Your task to perform on an android device: Add logitech g pro to the cart on costco, then select checkout. Image 0: 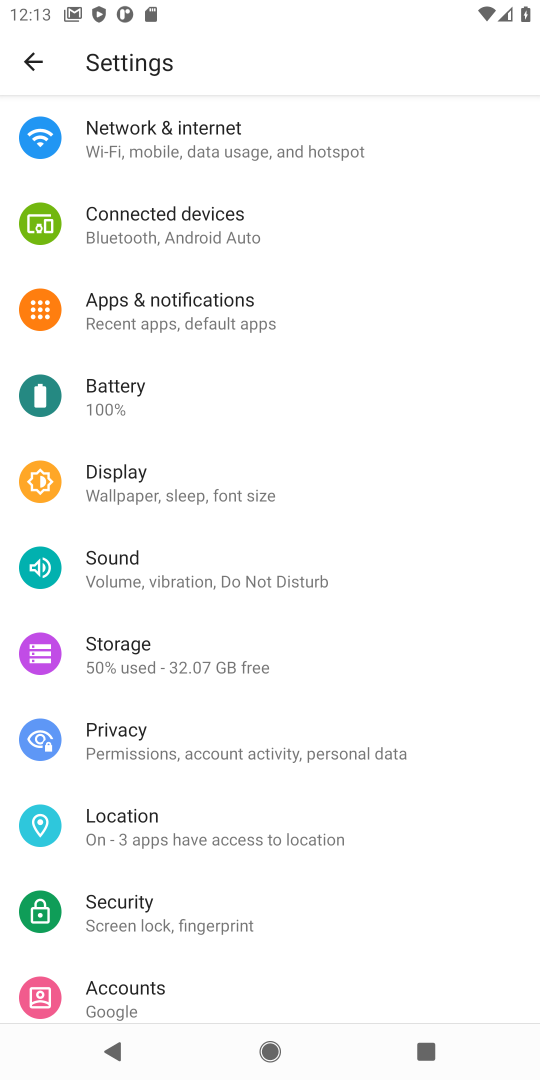
Step 0: press home button
Your task to perform on an android device: Add logitech g pro to the cart on costco, then select checkout. Image 1: 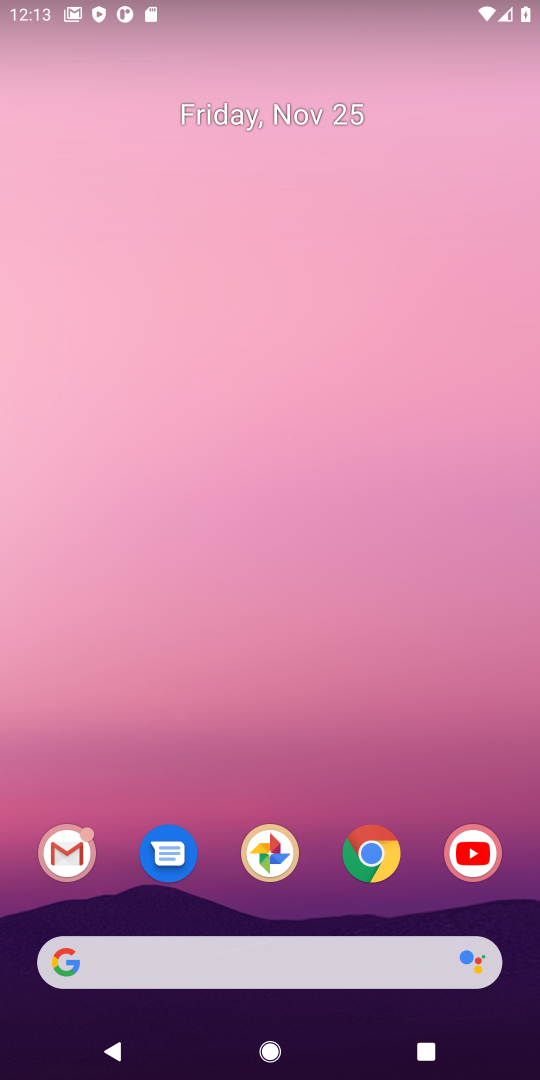
Step 1: click (186, 957)
Your task to perform on an android device: Add logitech g pro to the cart on costco, then select checkout. Image 2: 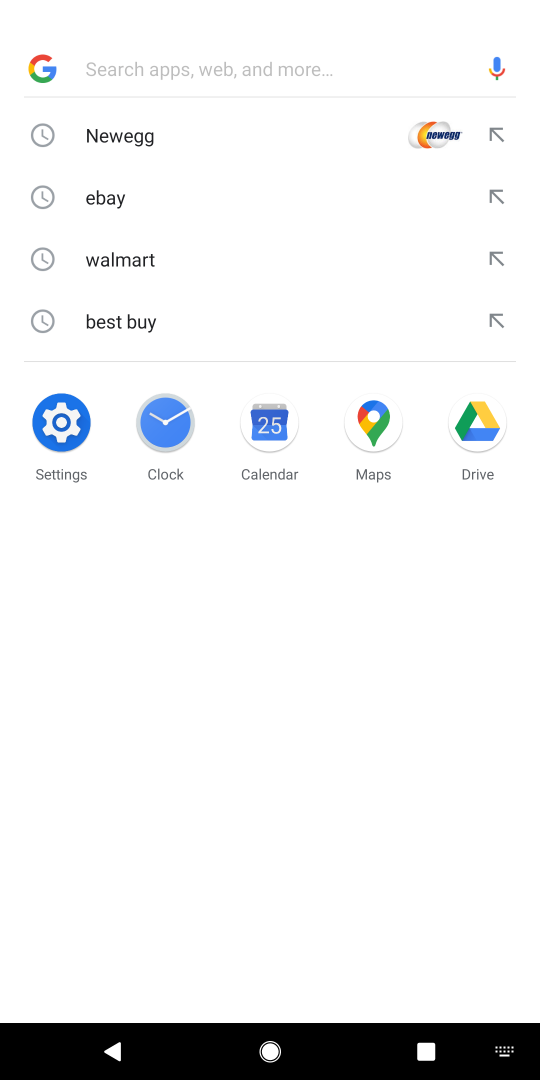
Step 2: type "costco"
Your task to perform on an android device: Add logitech g pro to the cart on costco, then select checkout. Image 3: 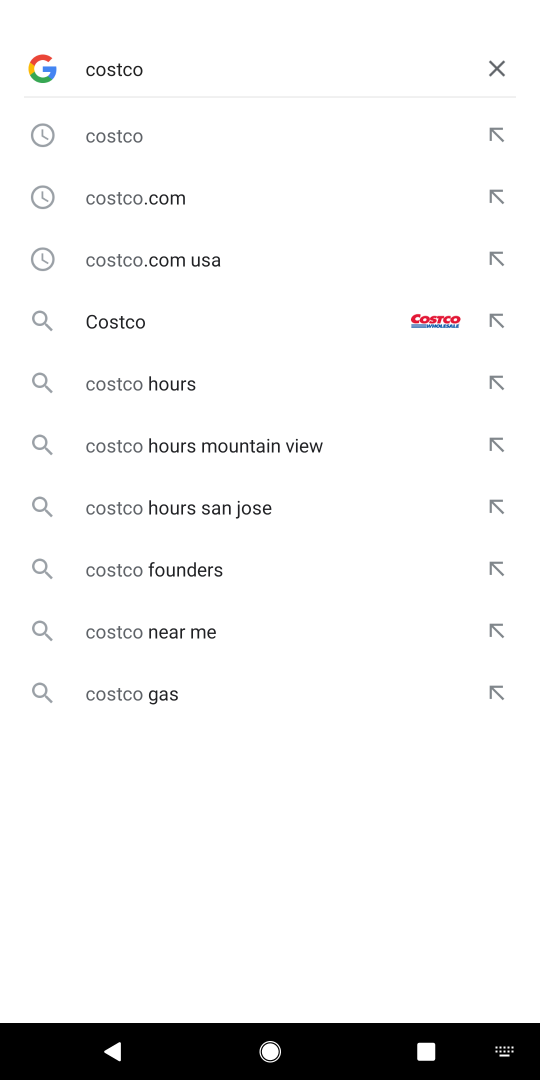
Step 3: click (282, 320)
Your task to perform on an android device: Add logitech g pro to the cart on costco, then select checkout. Image 4: 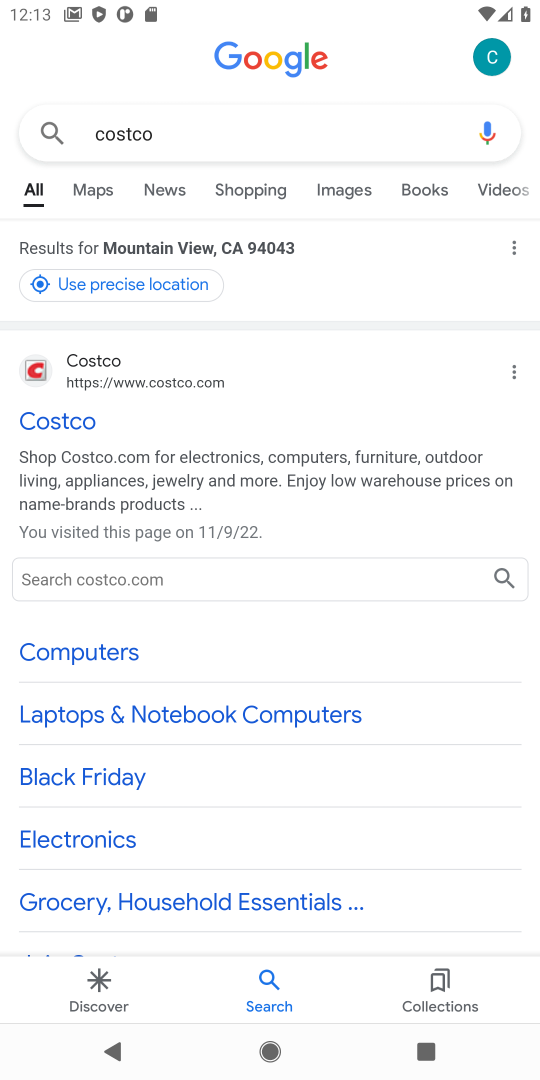
Step 4: click (83, 417)
Your task to perform on an android device: Add logitech g pro to the cart on costco, then select checkout. Image 5: 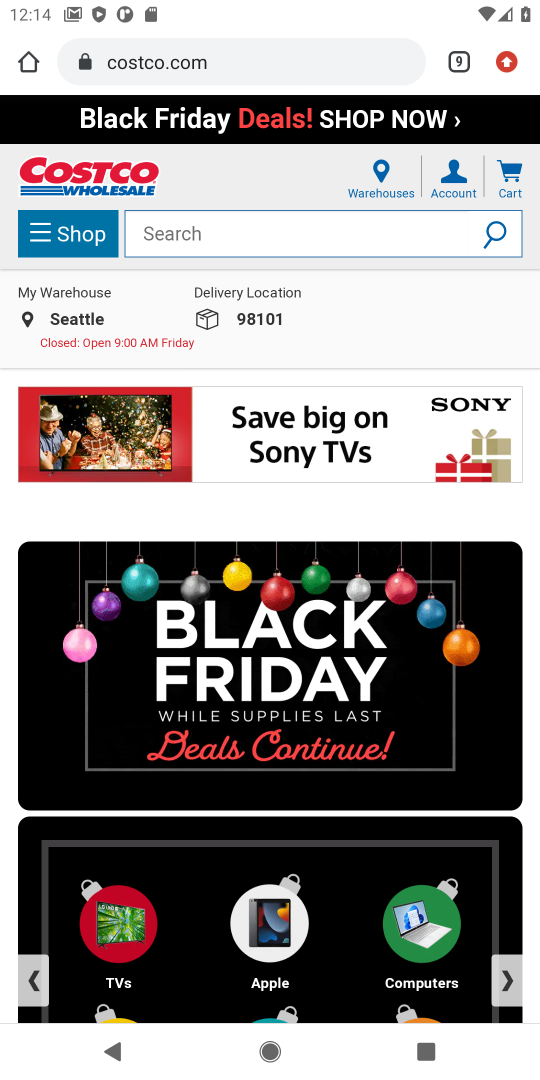
Step 5: task complete